Your task to perform on an android device: Open the calendar app, open the side menu, and click the "Day" option Image 0: 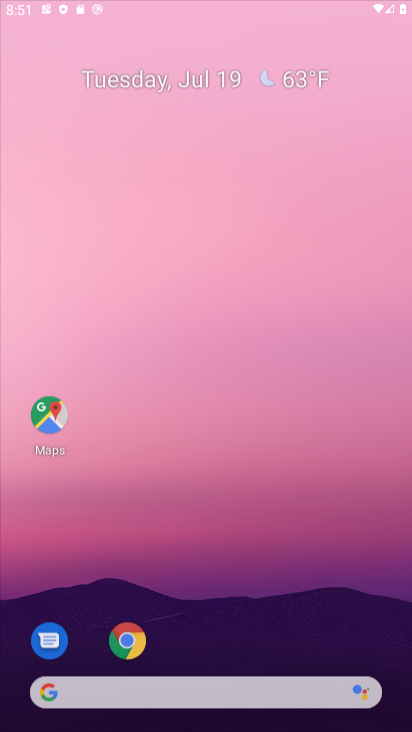
Step 0: click (236, 281)
Your task to perform on an android device: Open the calendar app, open the side menu, and click the "Day" option Image 1: 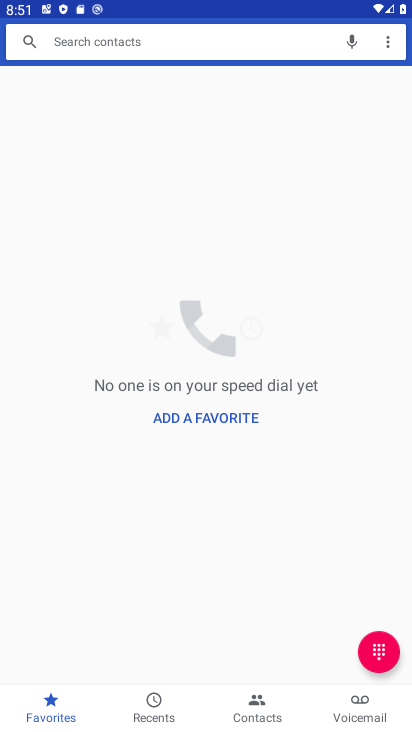
Step 1: drag from (255, 617) to (258, 96)
Your task to perform on an android device: Open the calendar app, open the side menu, and click the "Day" option Image 2: 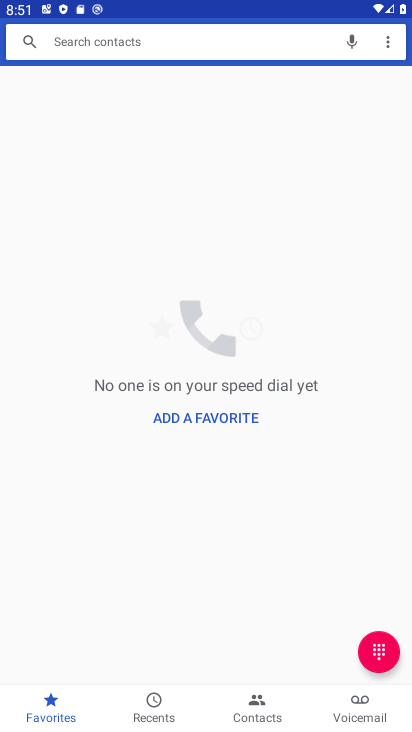
Step 2: press home button
Your task to perform on an android device: Open the calendar app, open the side menu, and click the "Day" option Image 3: 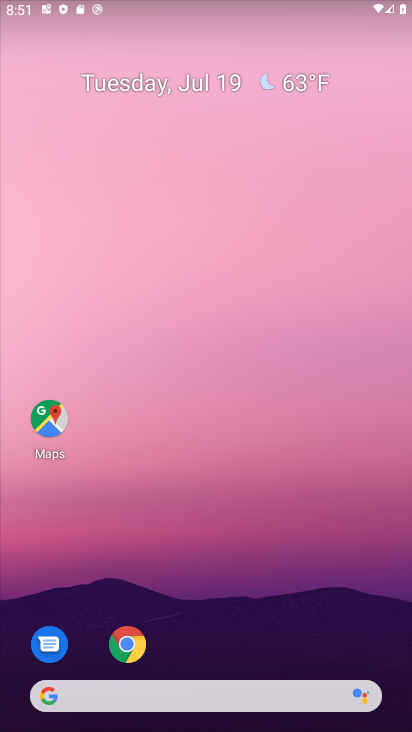
Step 3: drag from (133, 457) to (95, 225)
Your task to perform on an android device: Open the calendar app, open the side menu, and click the "Day" option Image 4: 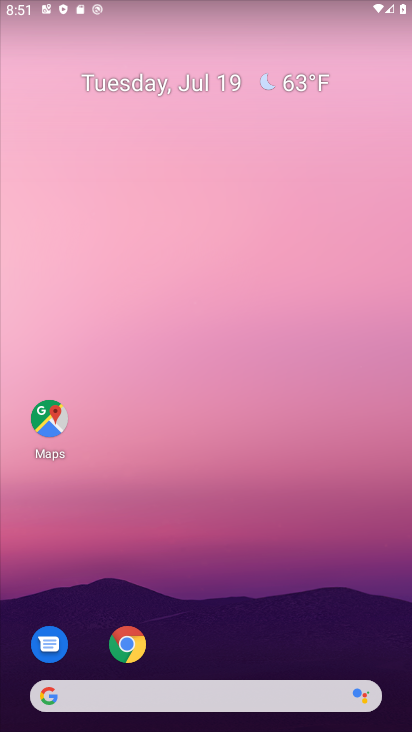
Step 4: drag from (258, 676) to (219, 124)
Your task to perform on an android device: Open the calendar app, open the side menu, and click the "Day" option Image 5: 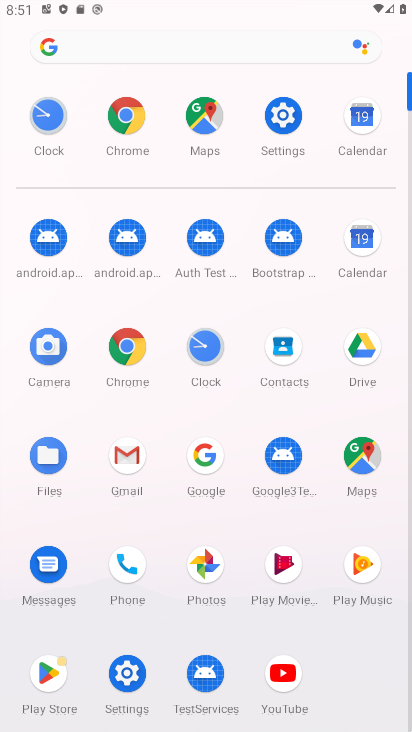
Step 5: click (363, 248)
Your task to perform on an android device: Open the calendar app, open the side menu, and click the "Day" option Image 6: 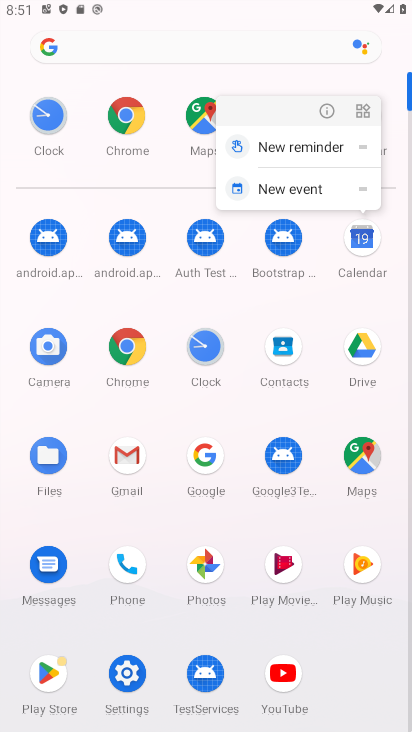
Step 6: click (363, 245)
Your task to perform on an android device: Open the calendar app, open the side menu, and click the "Day" option Image 7: 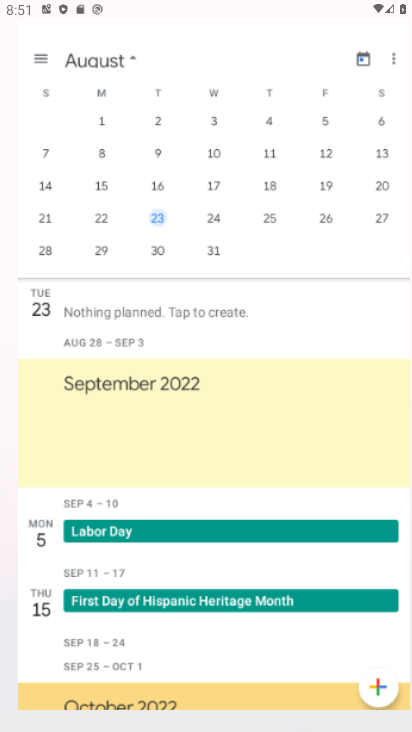
Step 7: click (364, 244)
Your task to perform on an android device: Open the calendar app, open the side menu, and click the "Day" option Image 8: 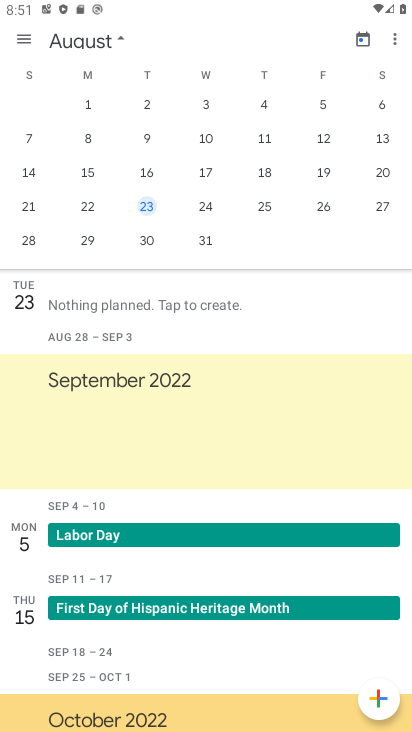
Step 8: click (30, 36)
Your task to perform on an android device: Open the calendar app, open the side menu, and click the "Day" option Image 9: 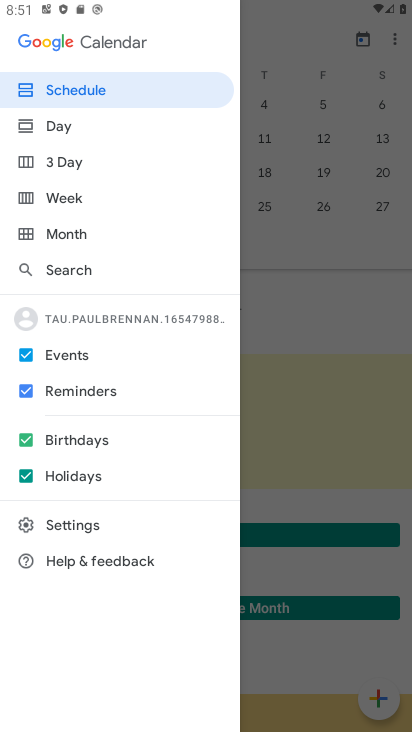
Step 9: click (57, 125)
Your task to perform on an android device: Open the calendar app, open the side menu, and click the "Day" option Image 10: 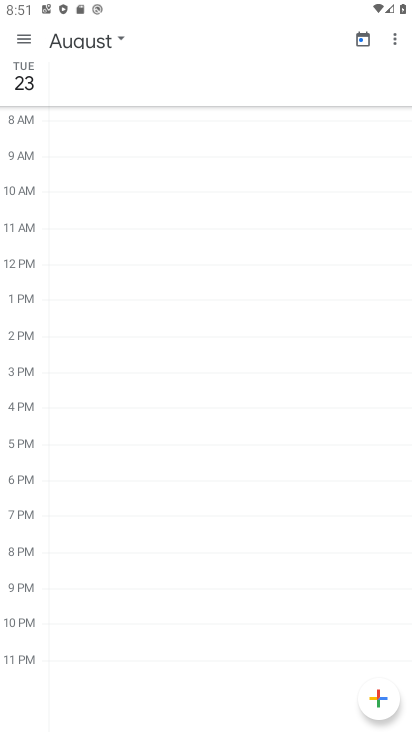
Step 10: task complete